Your task to perform on an android device: turn pop-ups off in chrome Image 0: 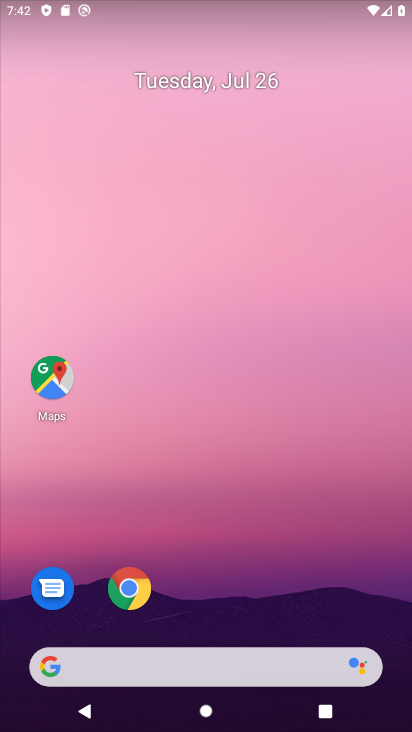
Step 0: drag from (297, 512) to (309, 93)
Your task to perform on an android device: turn pop-ups off in chrome Image 1: 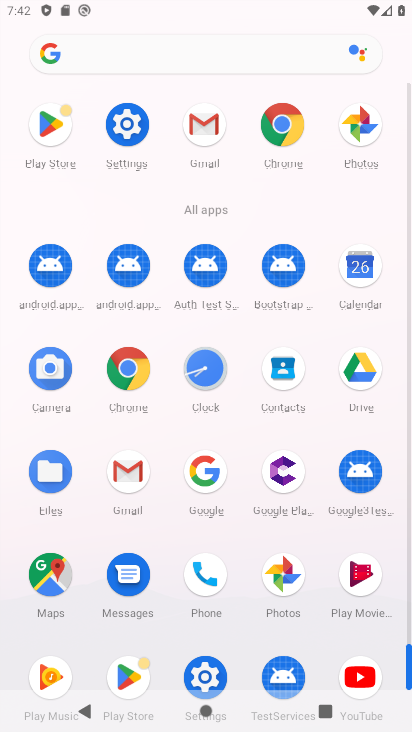
Step 1: click (278, 116)
Your task to perform on an android device: turn pop-ups off in chrome Image 2: 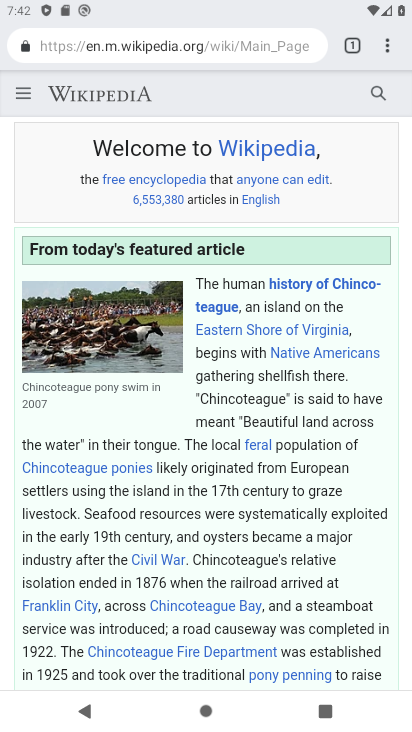
Step 2: drag from (390, 43) to (218, 544)
Your task to perform on an android device: turn pop-ups off in chrome Image 3: 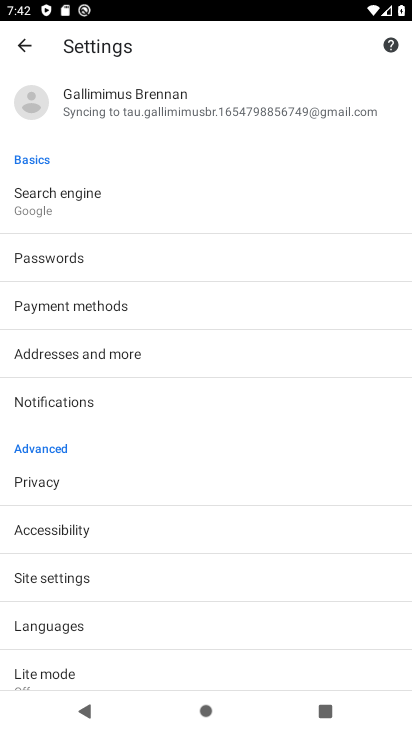
Step 3: click (86, 586)
Your task to perform on an android device: turn pop-ups off in chrome Image 4: 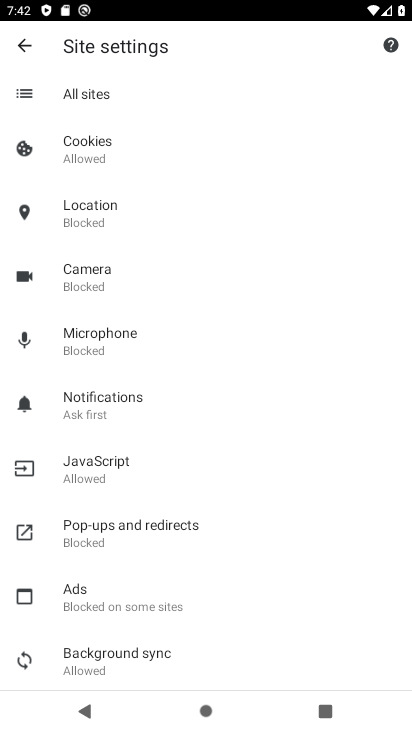
Step 4: click (111, 514)
Your task to perform on an android device: turn pop-ups off in chrome Image 5: 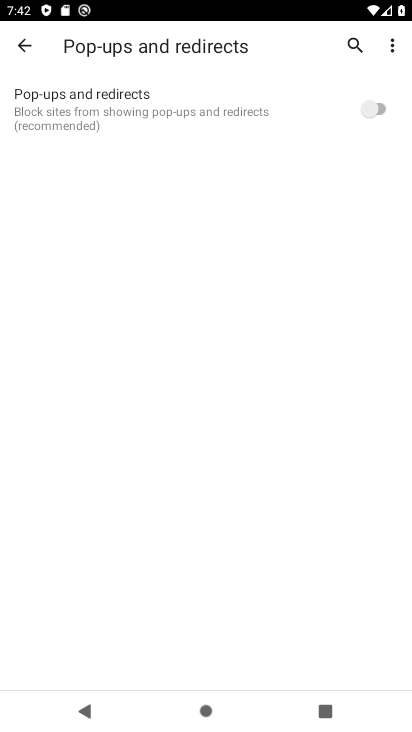
Step 5: task complete